Your task to perform on an android device: toggle improve location accuracy Image 0: 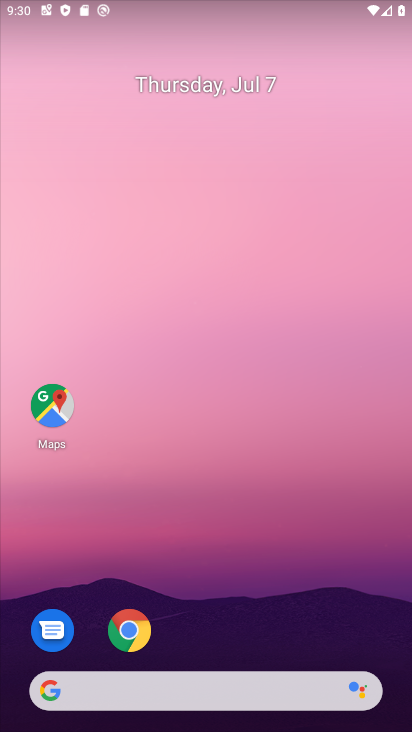
Step 0: press home button
Your task to perform on an android device: toggle improve location accuracy Image 1: 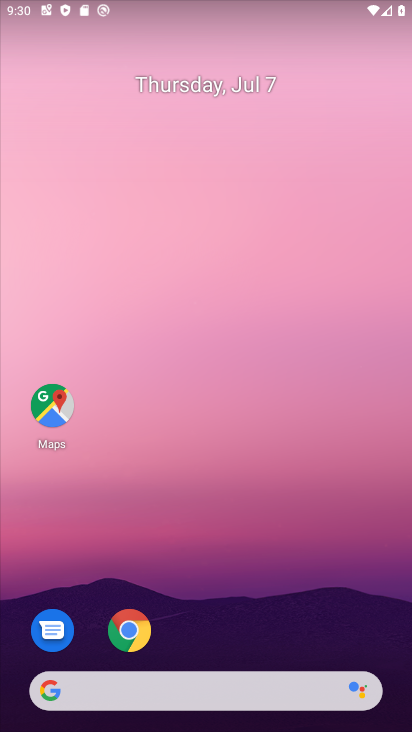
Step 1: drag from (149, 667) to (171, 449)
Your task to perform on an android device: toggle improve location accuracy Image 2: 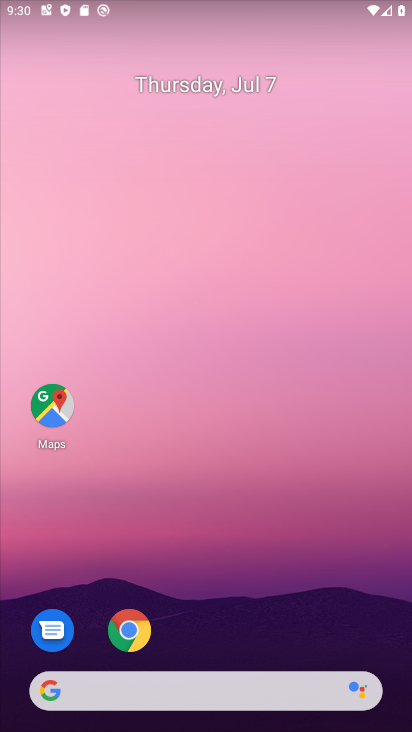
Step 2: drag from (203, 504) to (188, 244)
Your task to perform on an android device: toggle improve location accuracy Image 3: 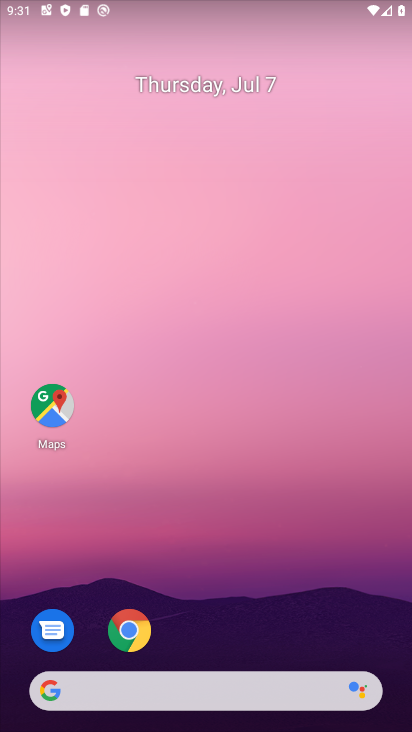
Step 3: drag from (197, 673) to (173, 261)
Your task to perform on an android device: toggle improve location accuracy Image 4: 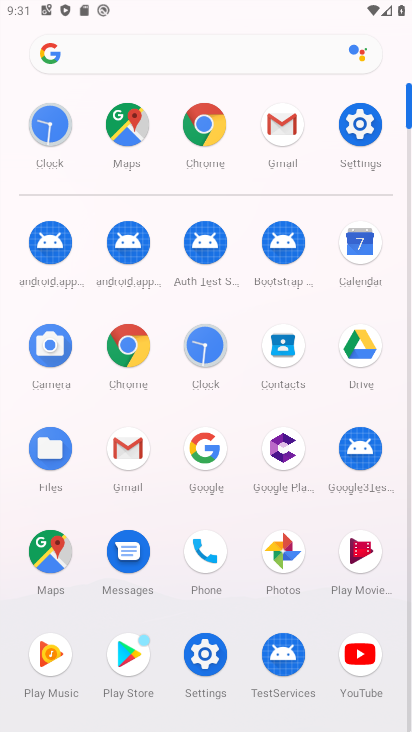
Step 4: click (350, 128)
Your task to perform on an android device: toggle improve location accuracy Image 5: 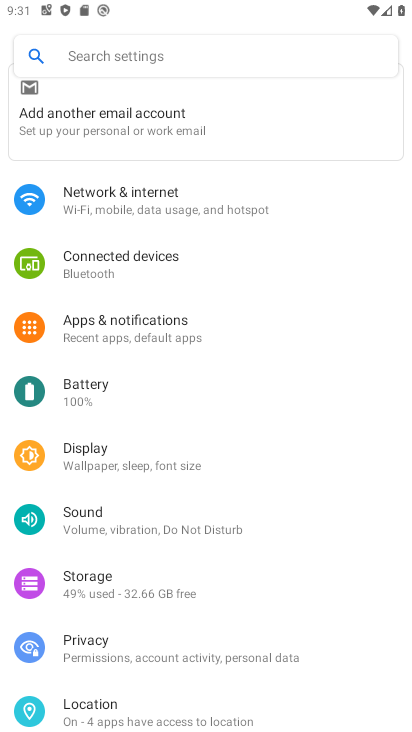
Step 5: click (111, 711)
Your task to perform on an android device: toggle improve location accuracy Image 6: 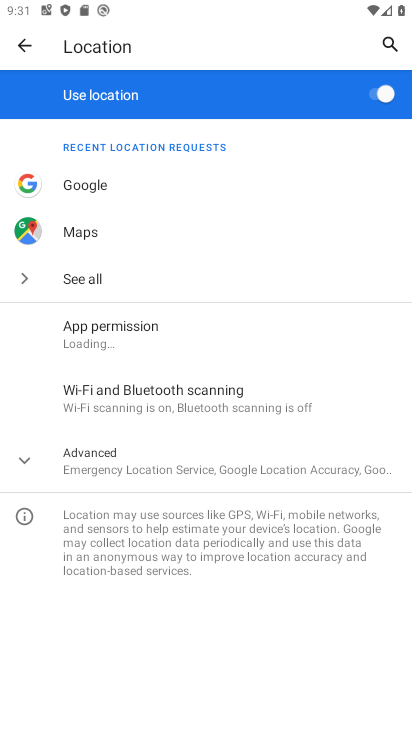
Step 6: click (63, 459)
Your task to perform on an android device: toggle improve location accuracy Image 7: 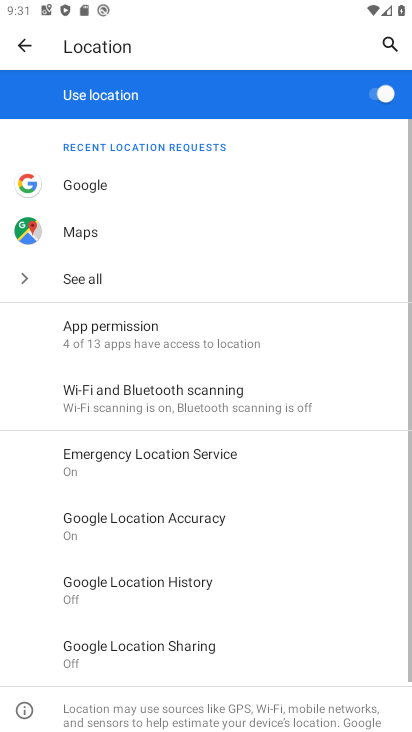
Step 7: click (156, 515)
Your task to perform on an android device: toggle improve location accuracy Image 8: 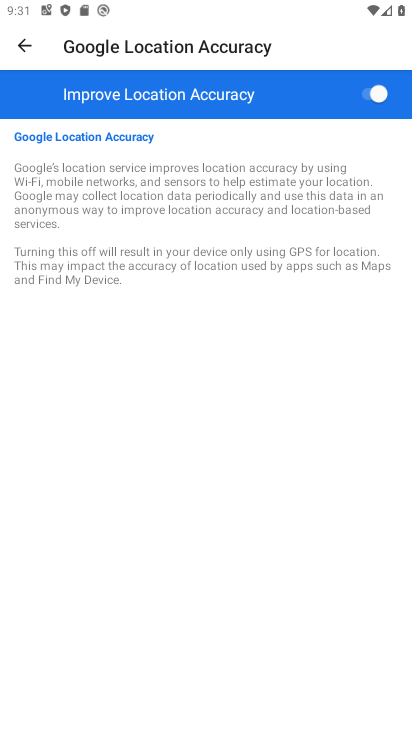
Step 8: click (364, 95)
Your task to perform on an android device: toggle improve location accuracy Image 9: 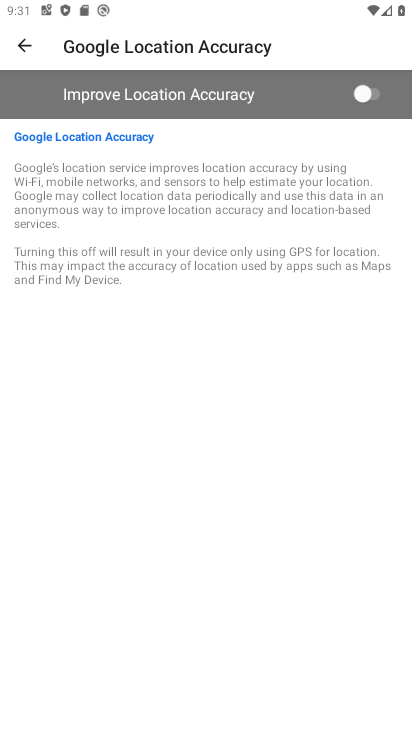
Step 9: task complete